Your task to perform on an android device: turn off location Image 0: 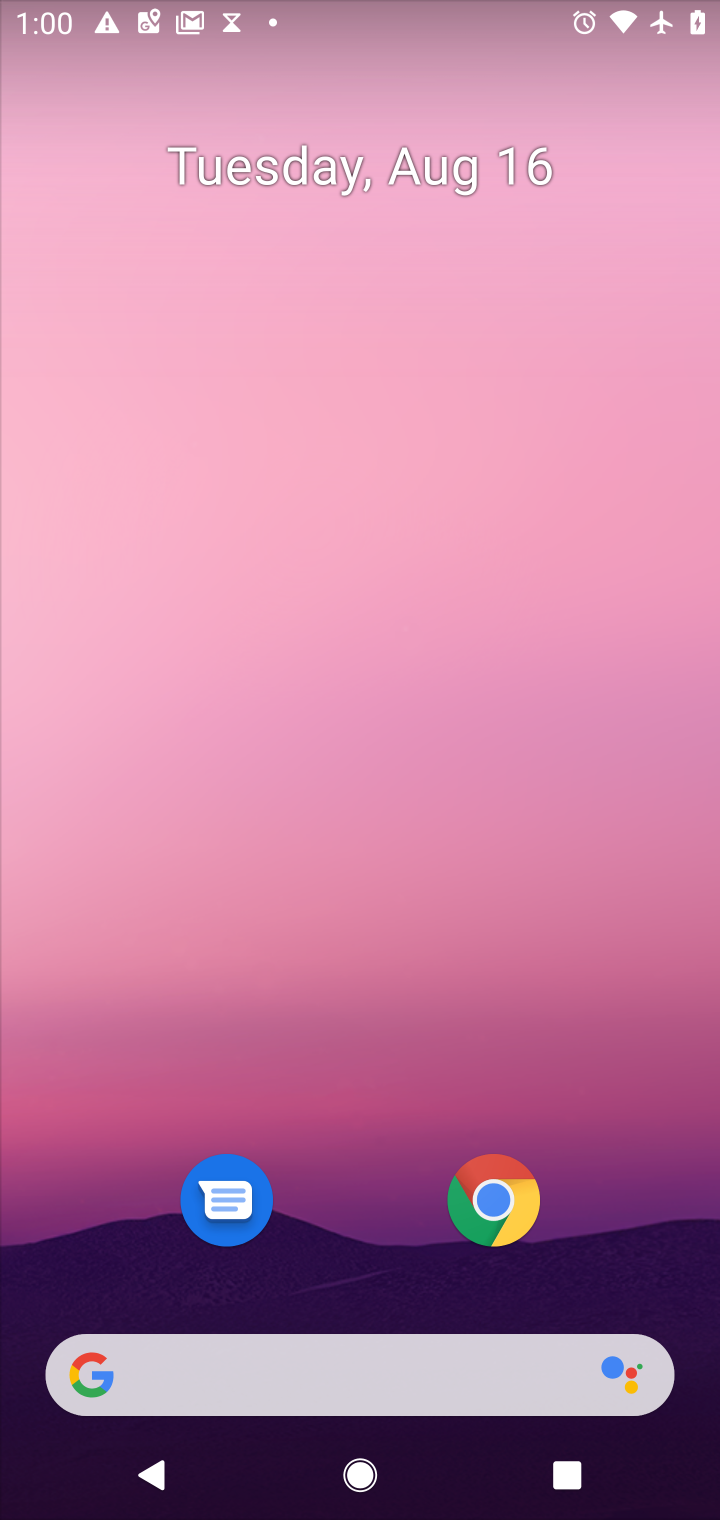
Step 0: drag from (336, 1206) to (264, 387)
Your task to perform on an android device: turn off location Image 1: 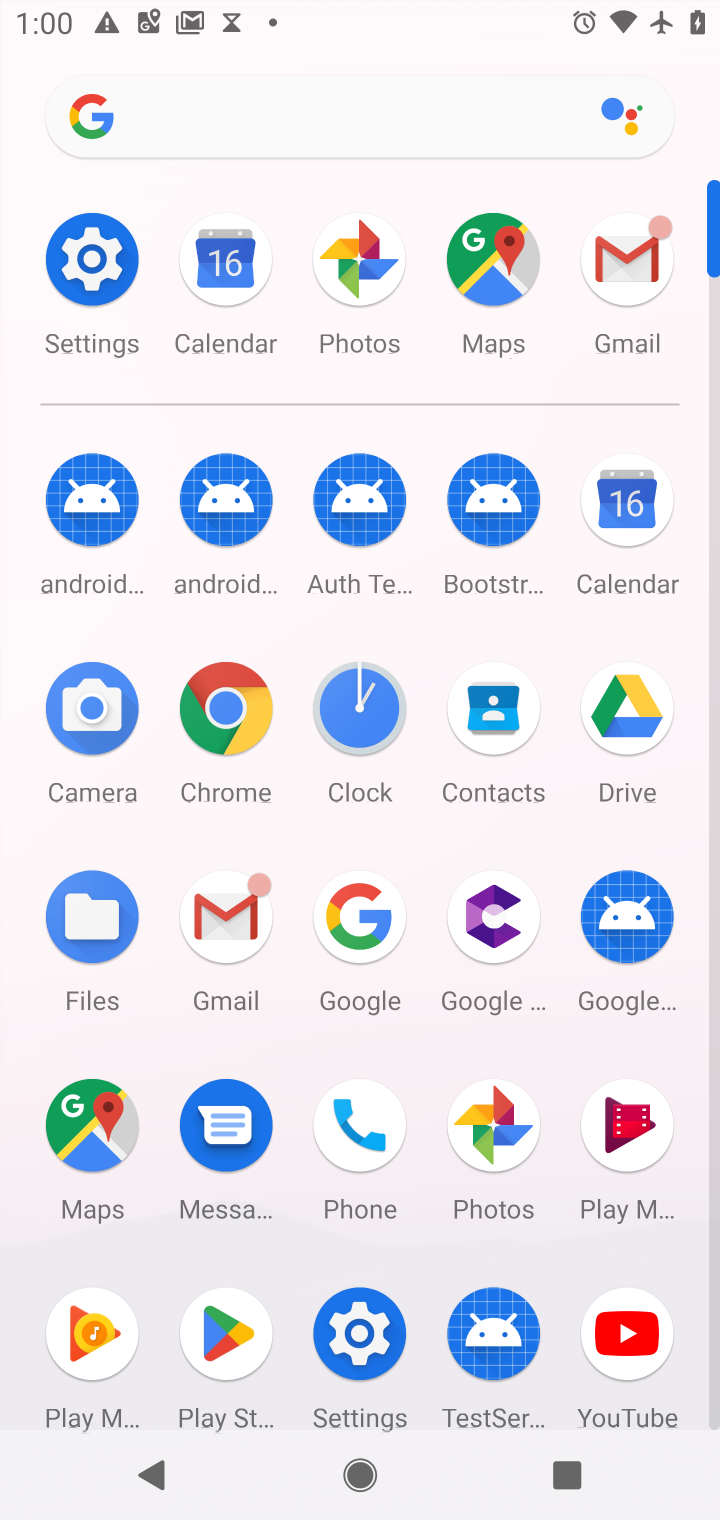
Step 1: click (84, 224)
Your task to perform on an android device: turn off location Image 2: 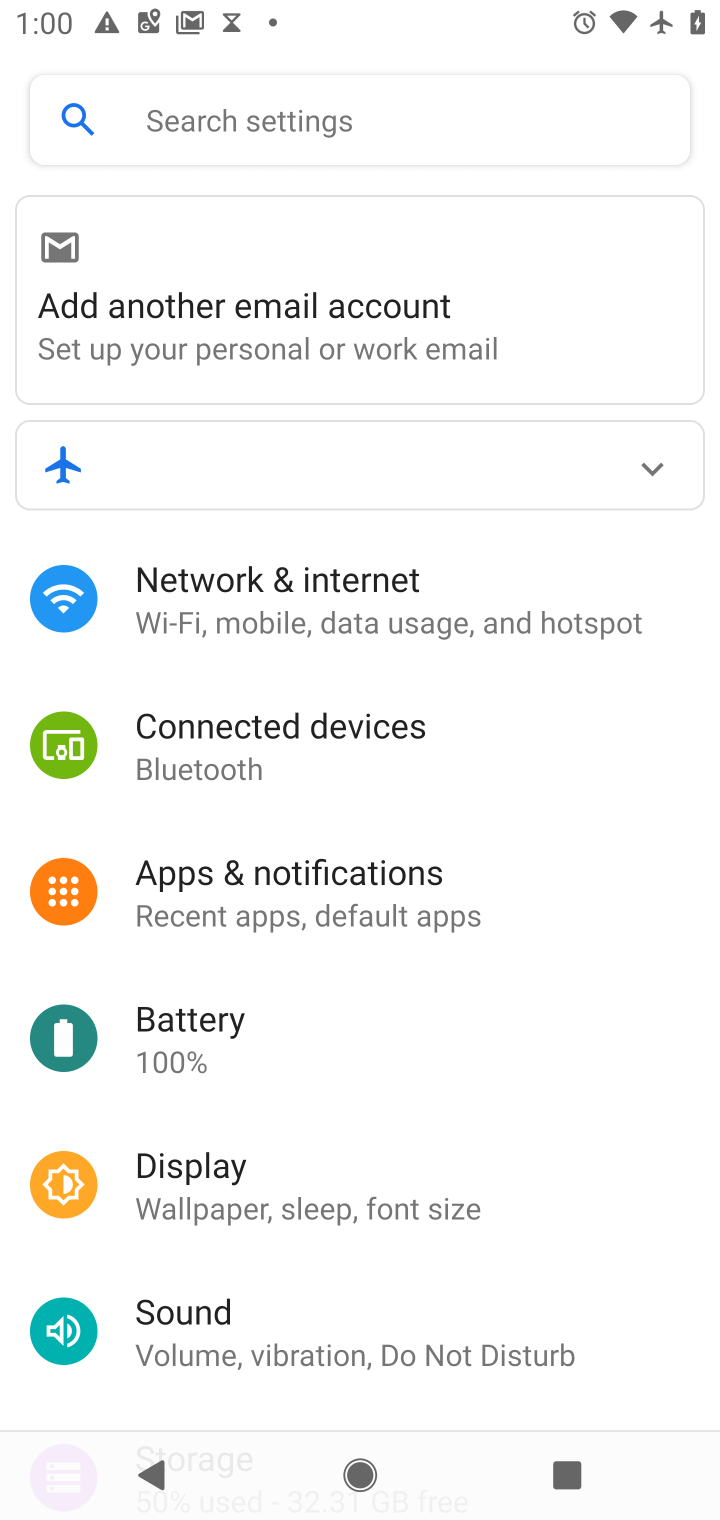
Step 2: drag from (366, 990) to (358, 507)
Your task to perform on an android device: turn off location Image 3: 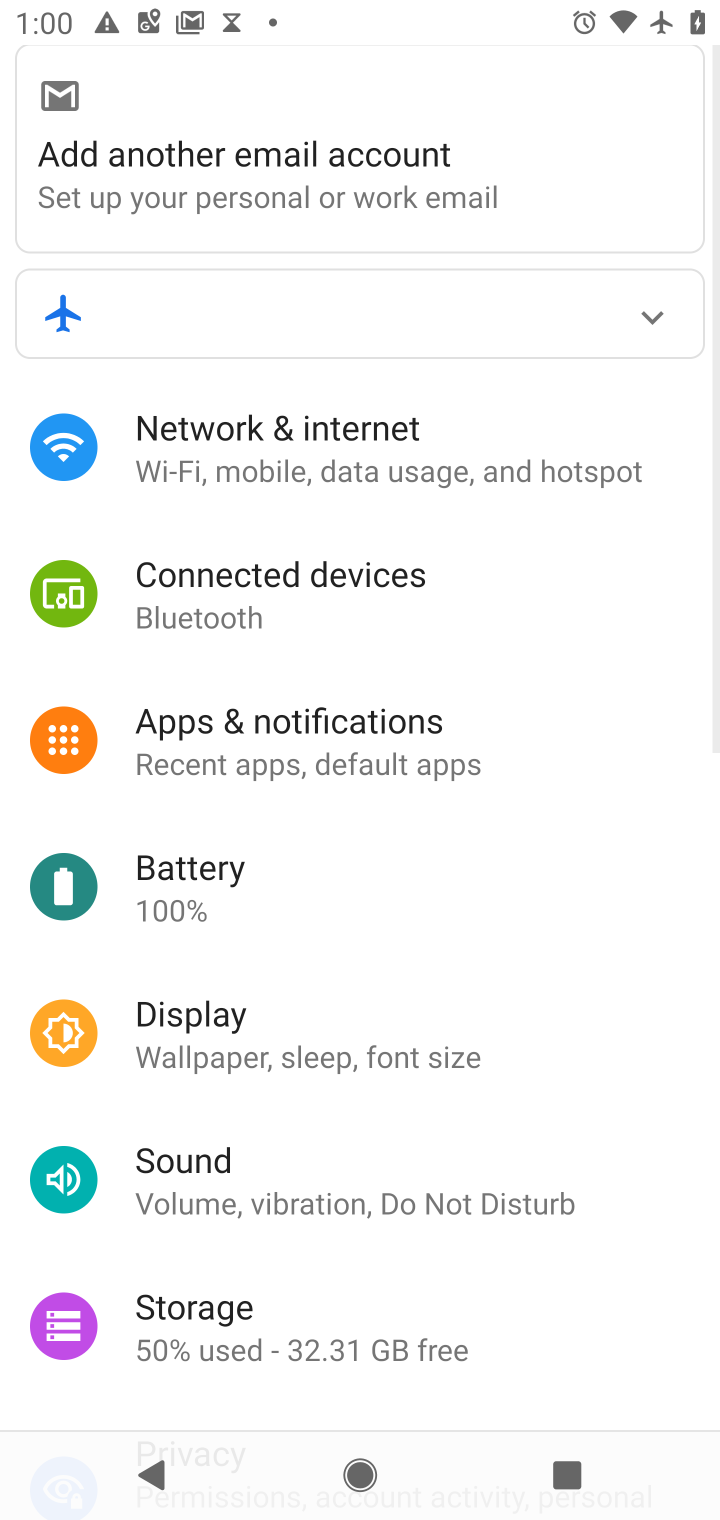
Step 3: drag from (343, 1183) to (337, 590)
Your task to perform on an android device: turn off location Image 4: 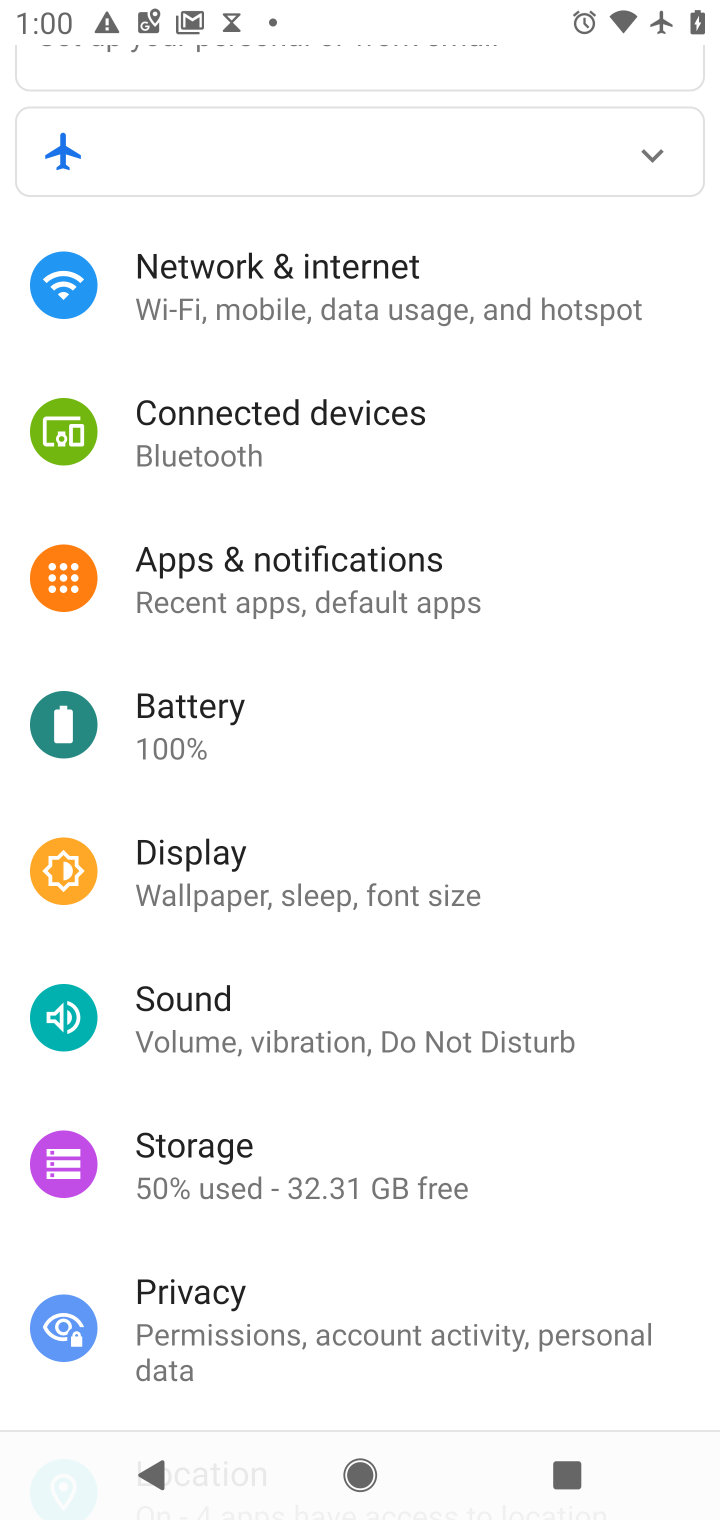
Step 4: drag from (339, 1229) to (361, 536)
Your task to perform on an android device: turn off location Image 5: 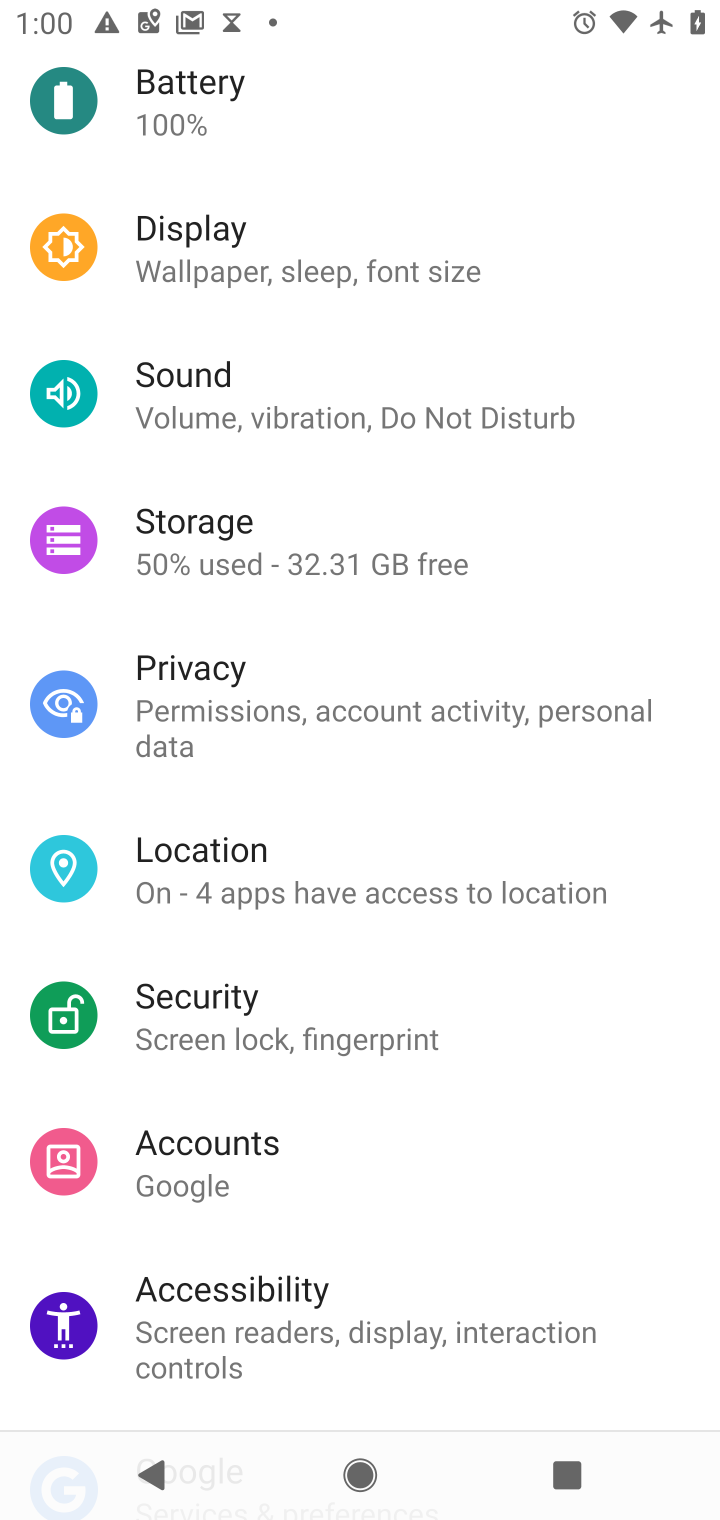
Step 5: click (192, 890)
Your task to perform on an android device: turn off location Image 6: 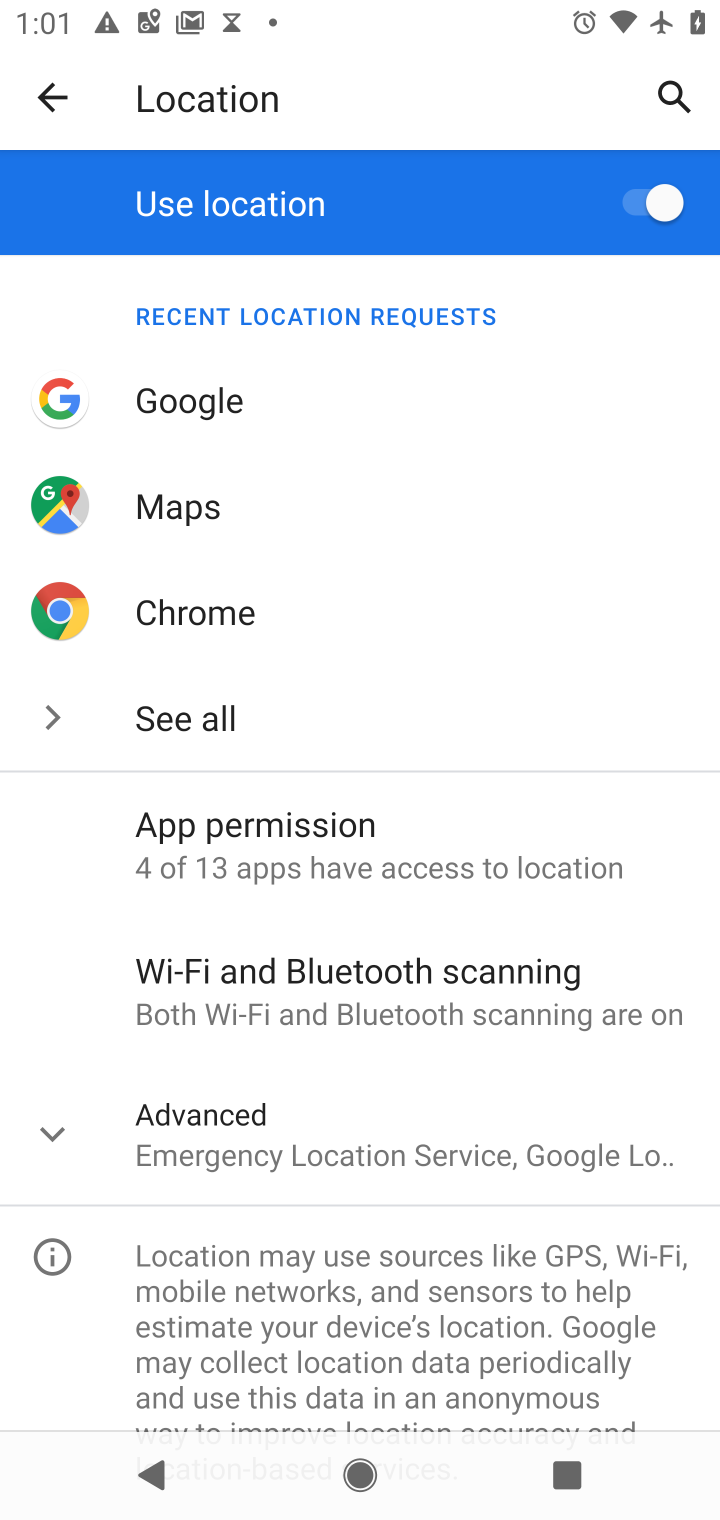
Step 6: click (620, 203)
Your task to perform on an android device: turn off location Image 7: 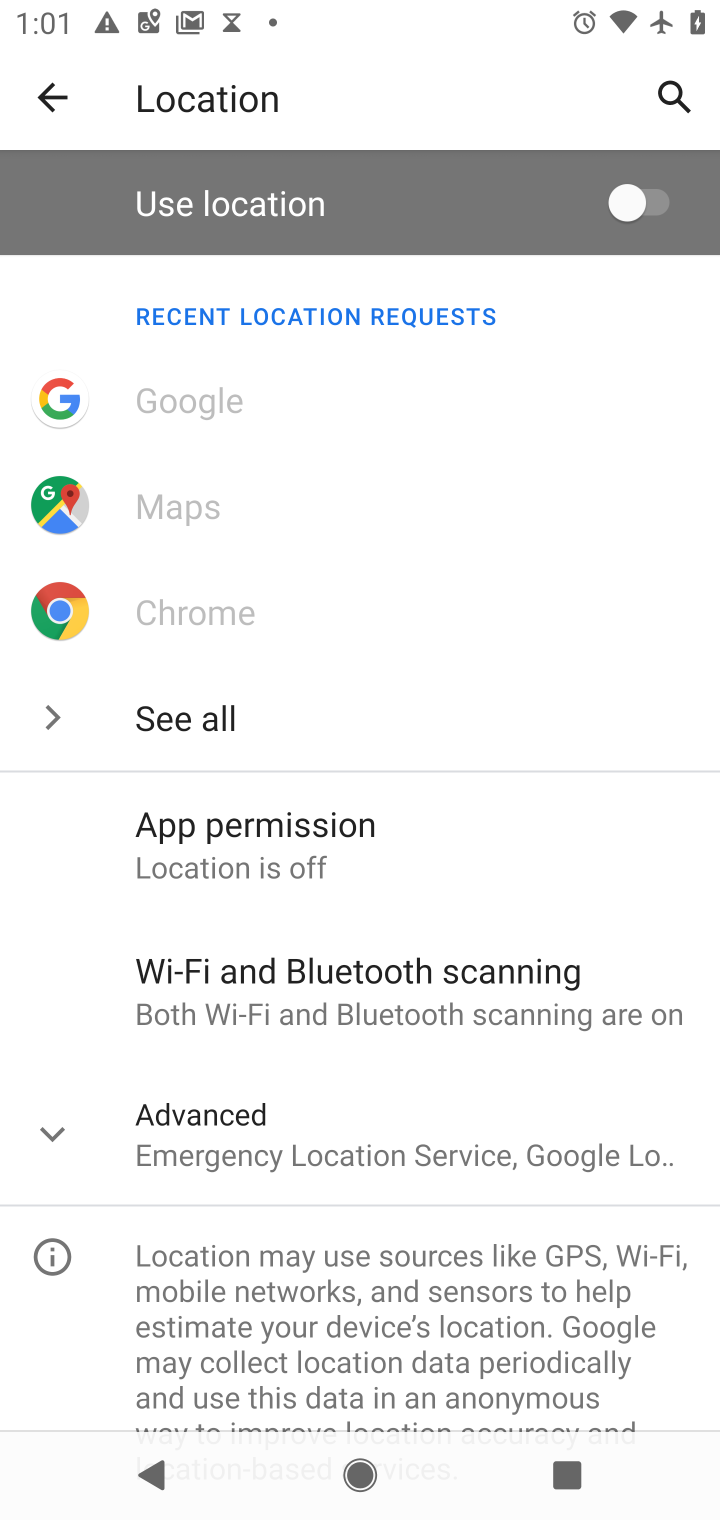
Step 7: task complete